Your task to perform on an android device: Open Wikipedia Image 0: 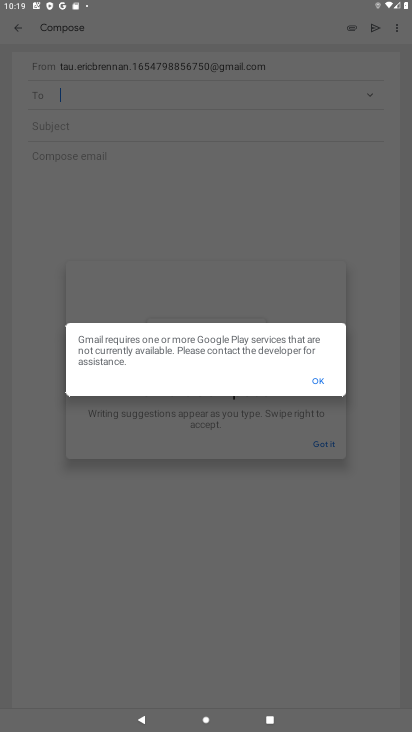
Step 0: press home button
Your task to perform on an android device: Open Wikipedia Image 1: 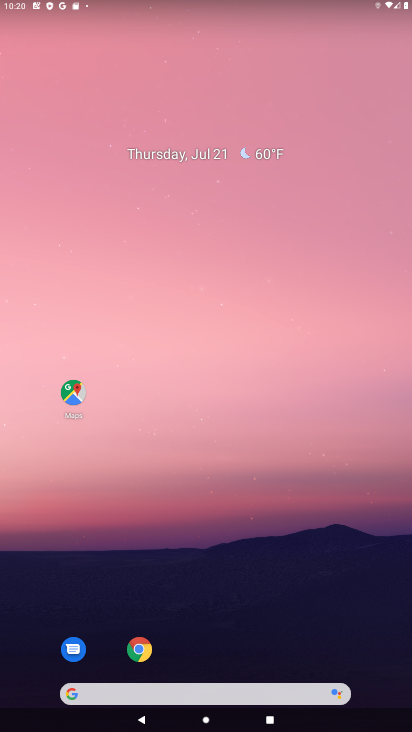
Step 1: click (138, 650)
Your task to perform on an android device: Open Wikipedia Image 2: 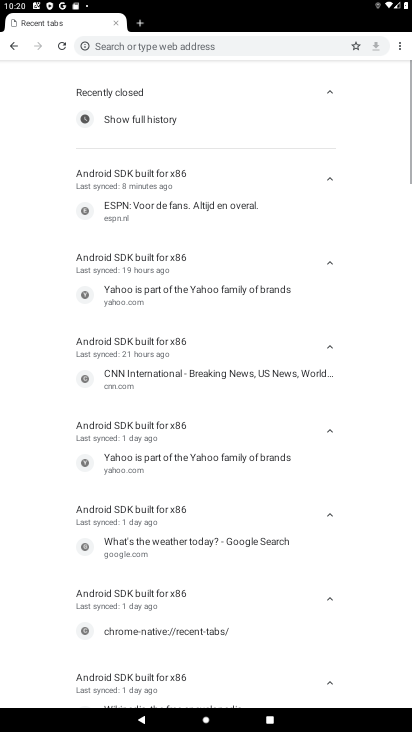
Step 2: click (255, 43)
Your task to perform on an android device: Open Wikipedia Image 3: 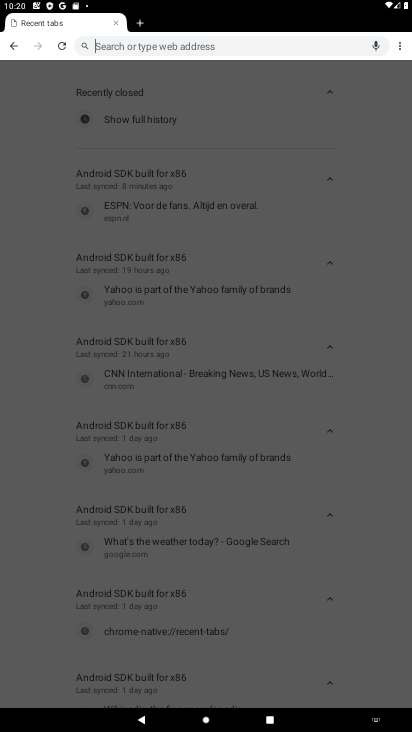
Step 3: type "Wikipedia"
Your task to perform on an android device: Open Wikipedia Image 4: 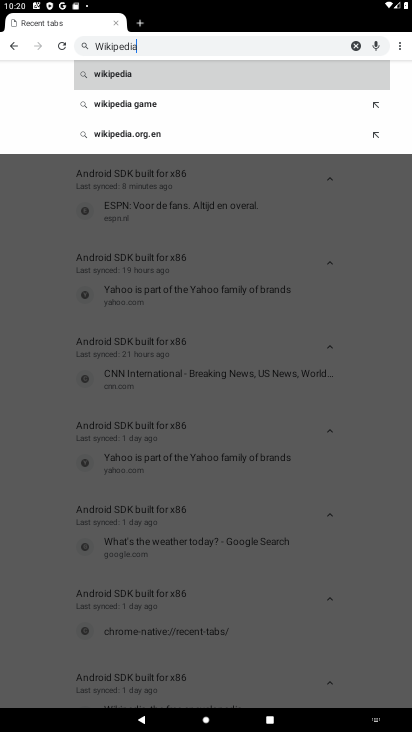
Step 4: click (157, 75)
Your task to perform on an android device: Open Wikipedia Image 5: 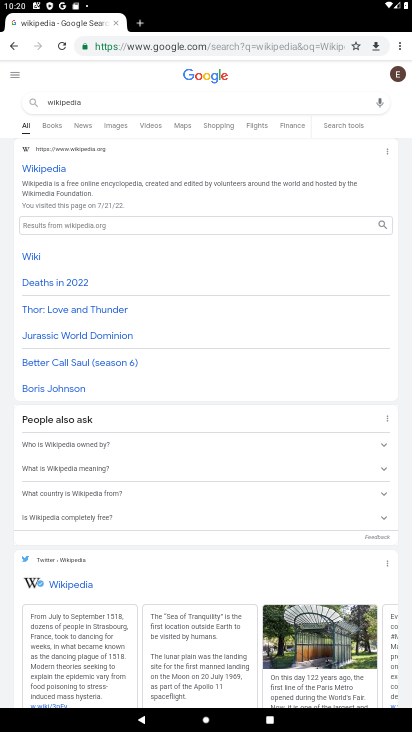
Step 5: click (56, 168)
Your task to perform on an android device: Open Wikipedia Image 6: 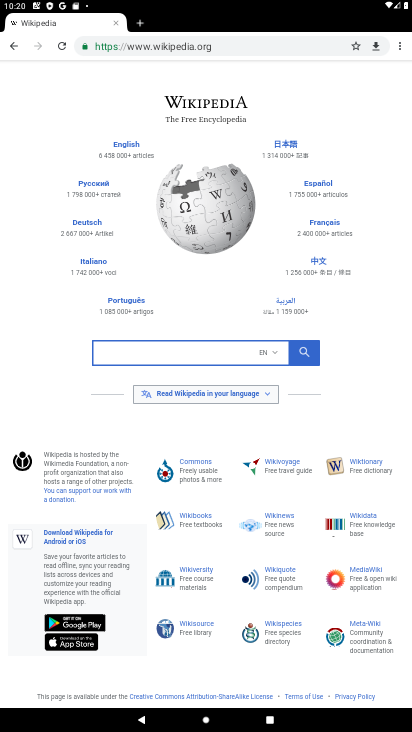
Step 6: task complete